Your task to perform on an android device: Search for sushi restaurants on Maps Image 0: 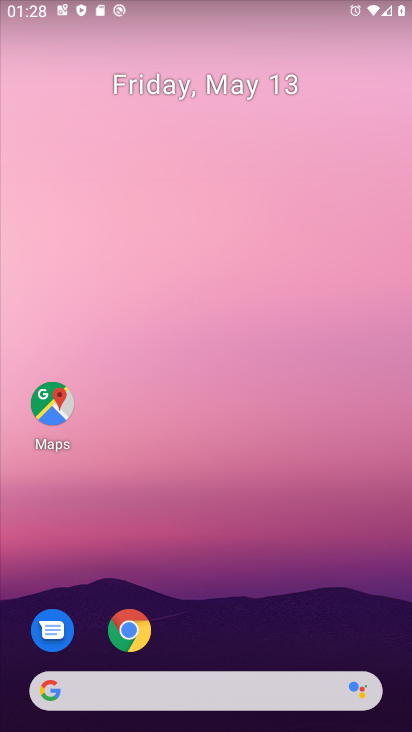
Step 0: drag from (249, 699) to (250, 338)
Your task to perform on an android device: Search for sushi restaurants on Maps Image 1: 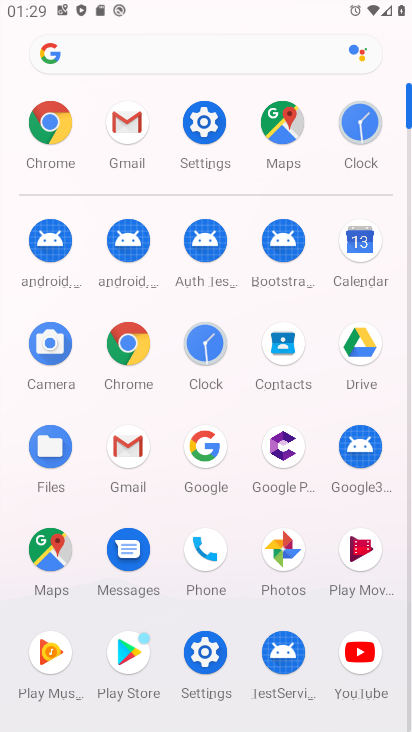
Step 1: click (268, 125)
Your task to perform on an android device: Search for sushi restaurants on Maps Image 2: 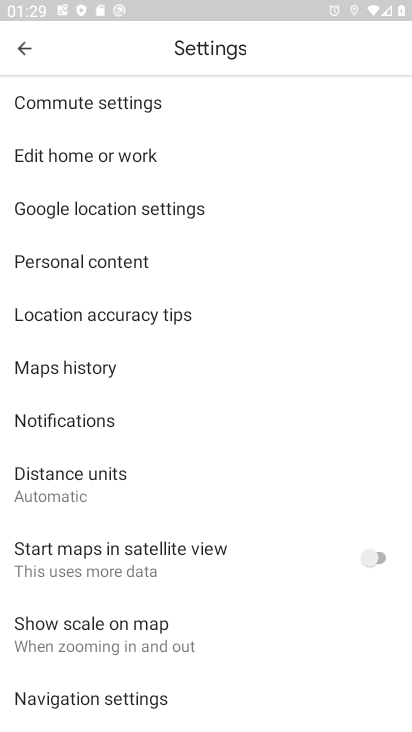
Step 2: click (32, 54)
Your task to perform on an android device: Search for sushi restaurants on Maps Image 3: 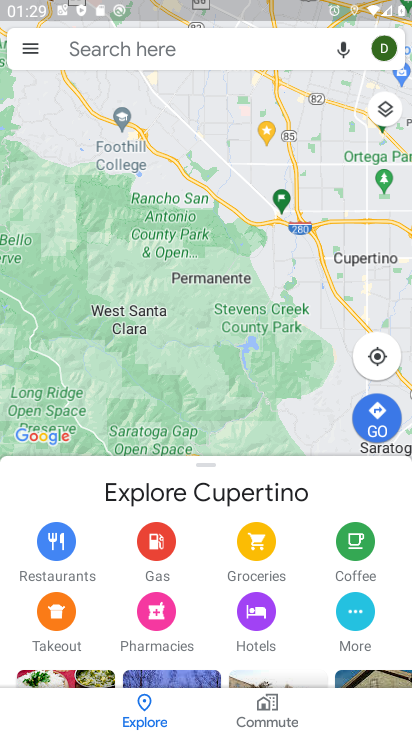
Step 3: click (116, 43)
Your task to perform on an android device: Search for sushi restaurants on Maps Image 4: 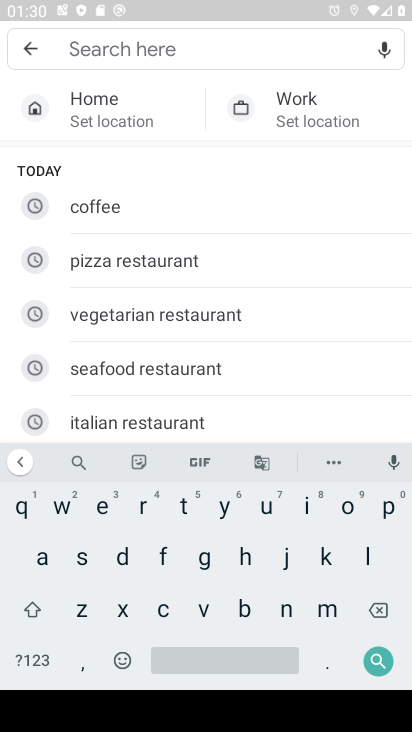
Step 4: click (74, 556)
Your task to perform on an android device: Search for sushi restaurants on Maps Image 5: 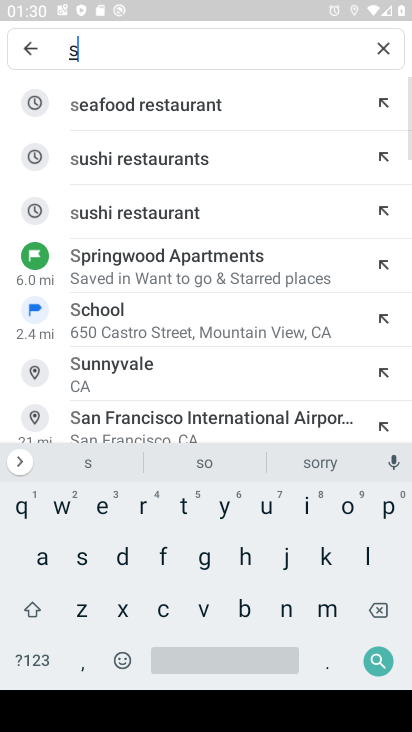
Step 5: click (139, 158)
Your task to perform on an android device: Search for sushi restaurants on Maps Image 6: 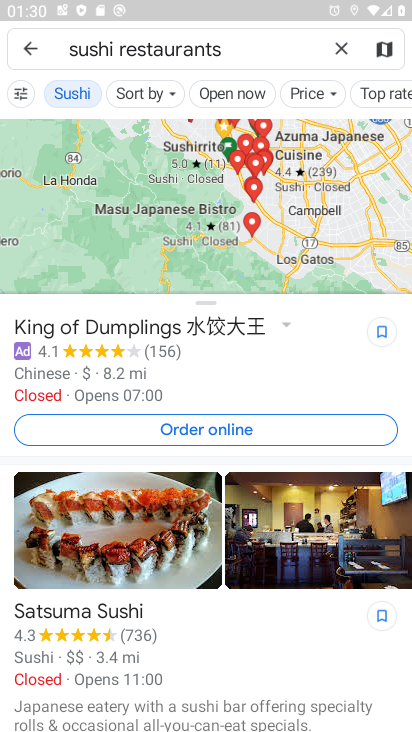
Step 6: click (135, 251)
Your task to perform on an android device: Search for sushi restaurants on Maps Image 7: 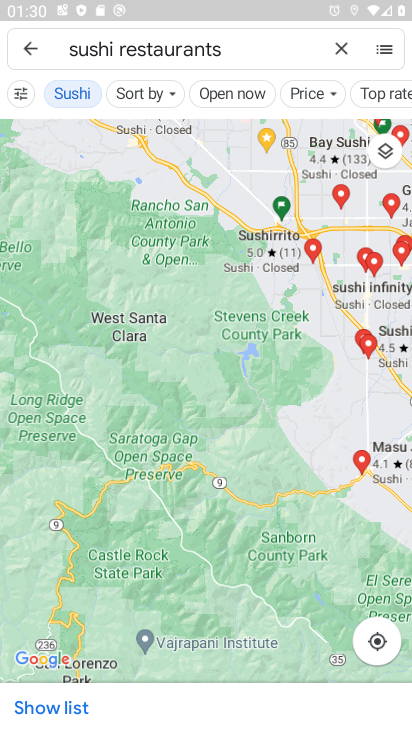
Step 7: task complete